Your task to perform on an android device: add a label to a message in the gmail app Image 0: 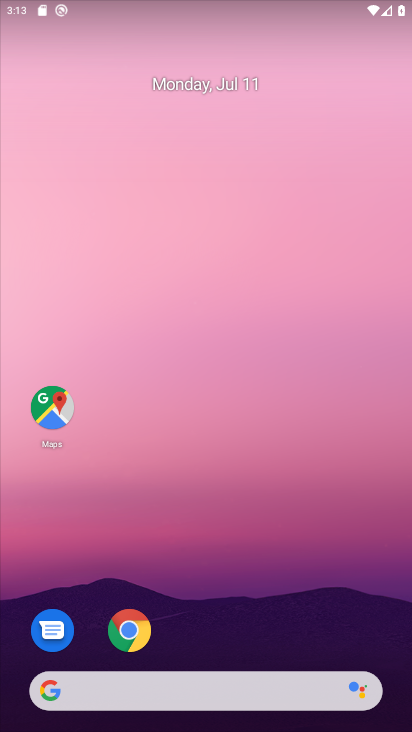
Step 0: drag from (277, 656) to (251, 69)
Your task to perform on an android device: add a label to a message in the gmail app Image 1: 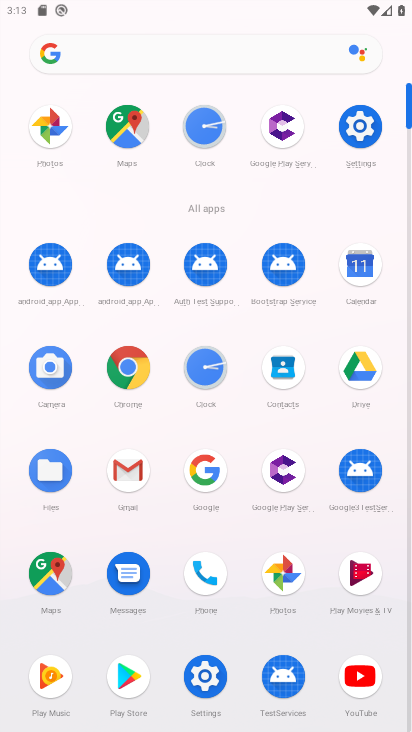
Step 1: click (111, 487)
Your task to perform on an android device: add a label to a message in the gmail app Image 2: 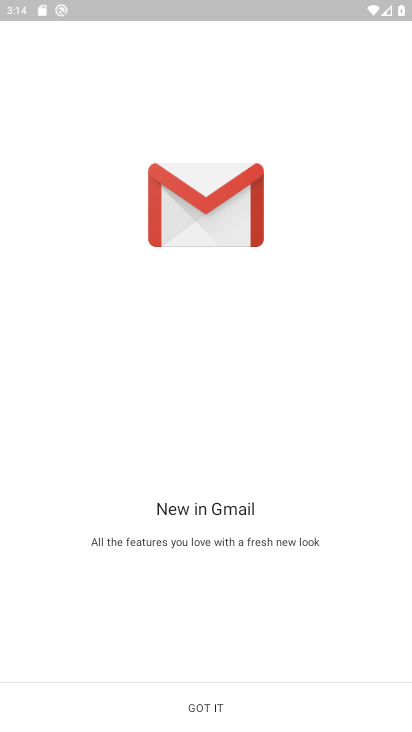
Step 2: click (226, 688)
Your task to perform on an android device: add a label to a message in the gmail app Image 3: 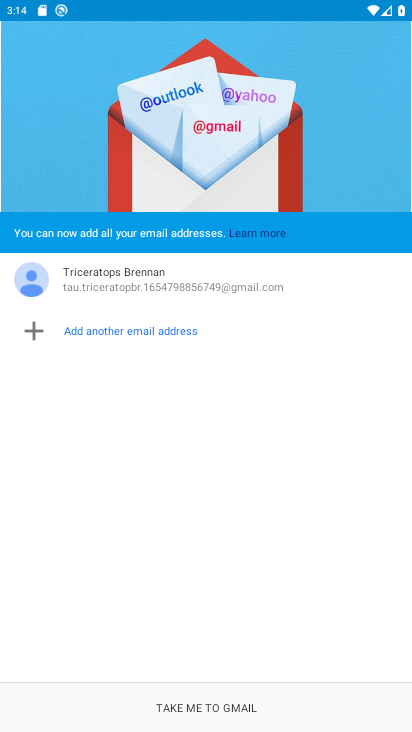
Step 3: click (226, 688)
Your task to perform on an android device: add a label to a message in the gmail app Image 4: 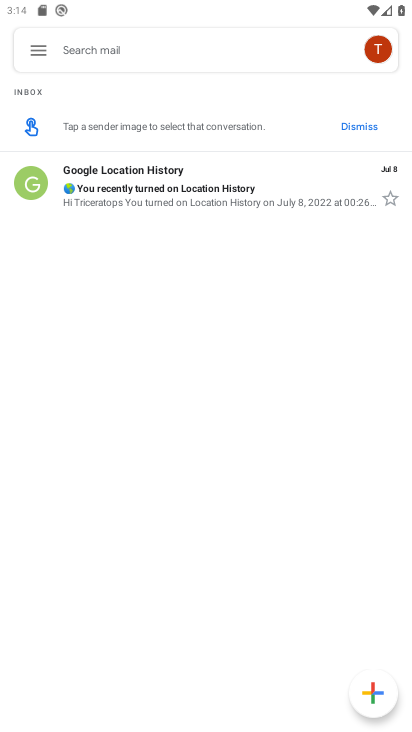
Step 4: click (29, 55)
Your task to perform on an android device: add a label to a message in the gmail app Image 5: 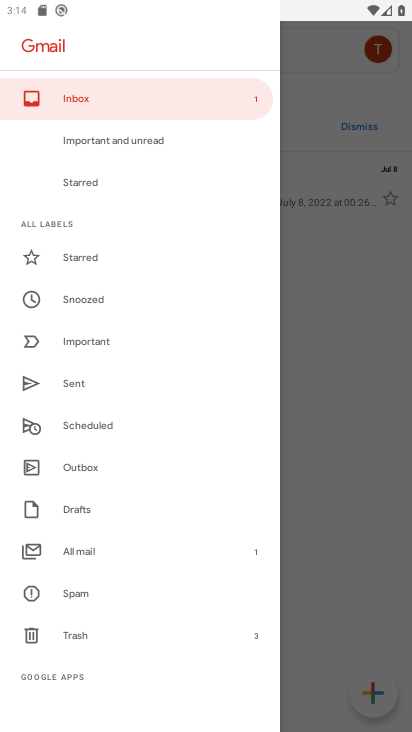
Step 5: drag from (137, 684) to (68, 152)
Your task to perform on an android device: add a label to a message in the gmail app Image 6: 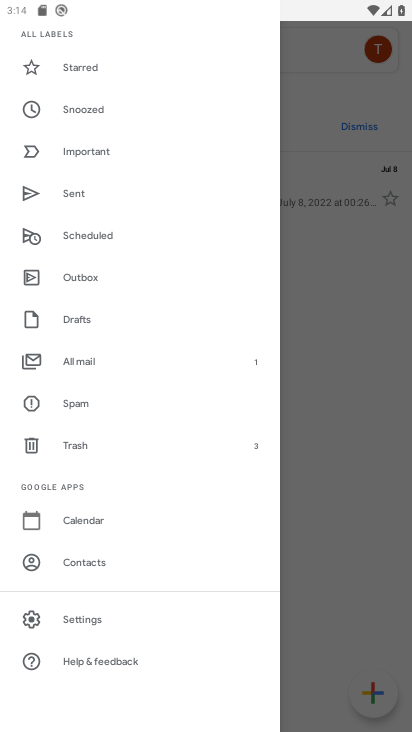
Step 6: click (113, 623)
Your task to perform on an android device: add a label to a message in the gmail app Image 7: 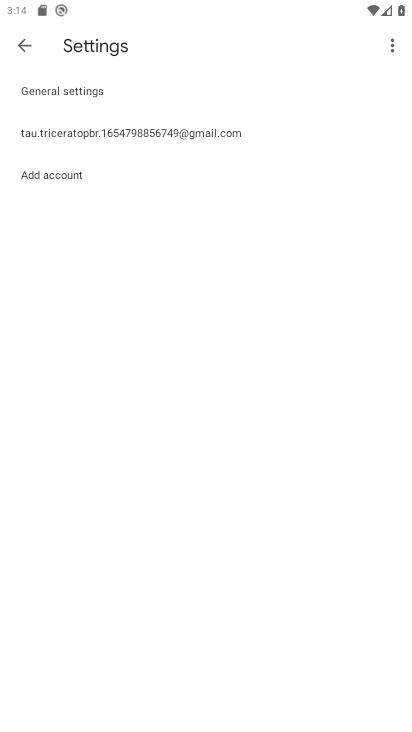
Step 7: click (140, 139)
Your task to perform on an android device: add a label to a message in the gmail app Image 8: 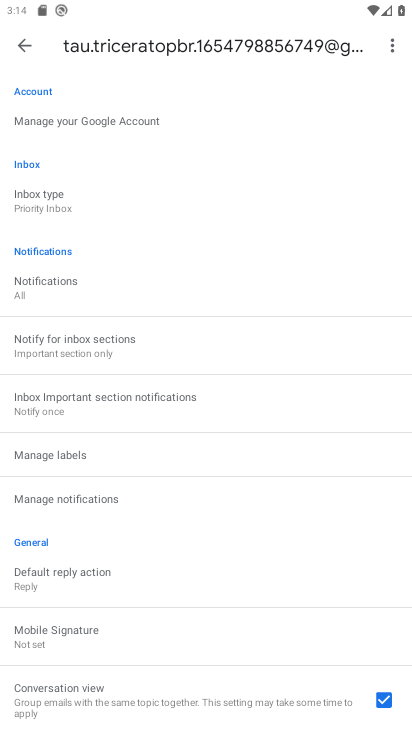
Step 8: click (157, 448)
Your task to perform on an android device: add a label to a message in the gmail app Image 9: 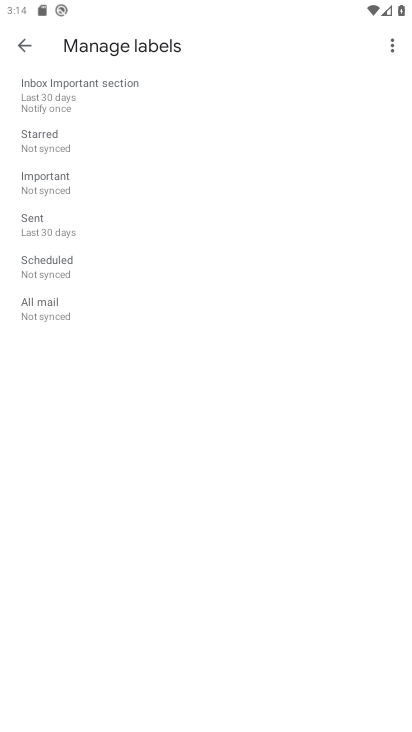
Step 9: task complete